Your task to perform on an android device: toggle notification dots Image 0: 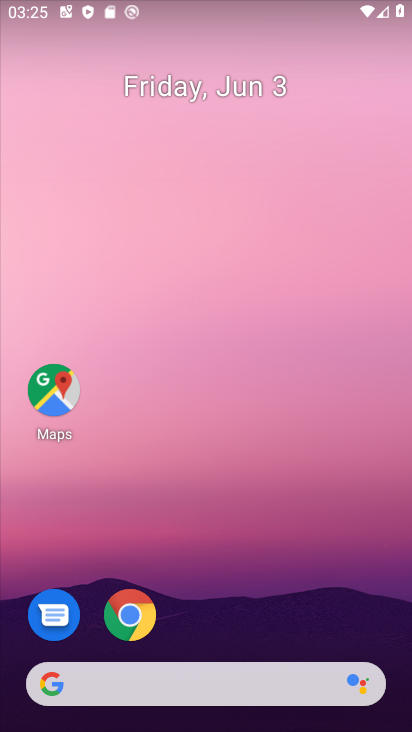
Step 0: drag from (261, 631) to (259, 1)
Your task to perform on an android device: toggle notification dots Image 1: 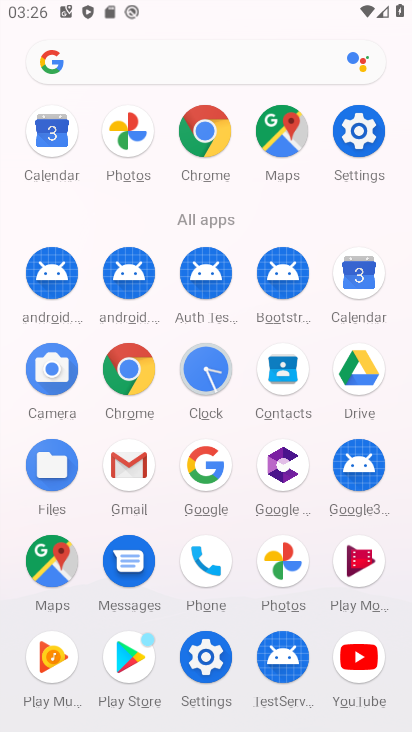
Step 1: click (367, 124)
Your task to perform on an android device: toggle notification dots Image 2: 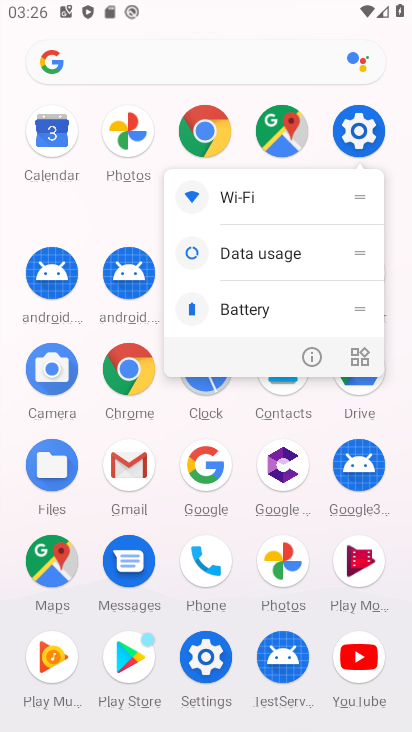
Step 2: click (363, 126)
Your task to perform on an android device: toggle notification dots Image 3: 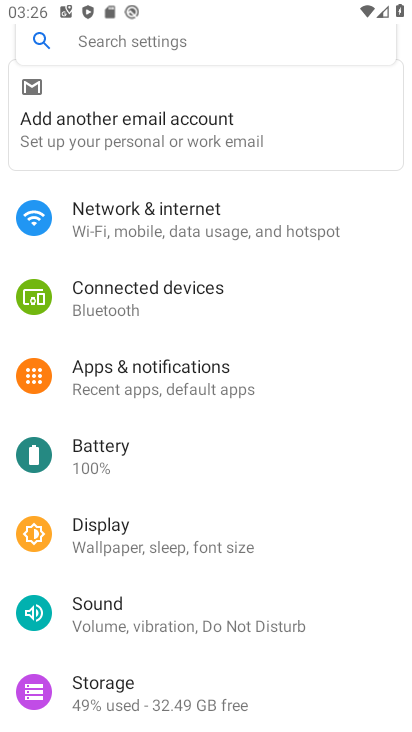
Step 3: click (200, 341)
Your task to perform on an android device: toggle notification dots Image 4: 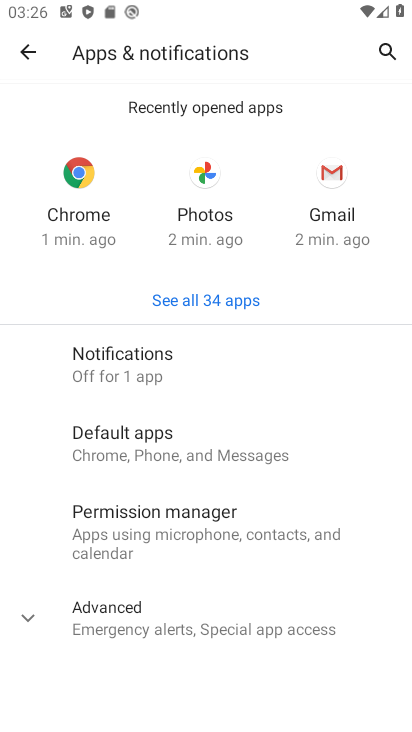
Step 4: click (153, 390)
Your task to perform on an android device: toggle notification dots Image 5: 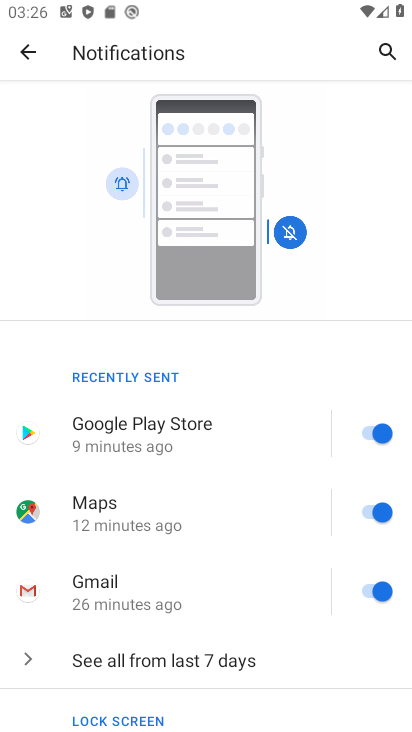
Step 5: drag from (235, 695) to (204, 259)
Your task to perform on an android device: toggle notification dots Image 6: 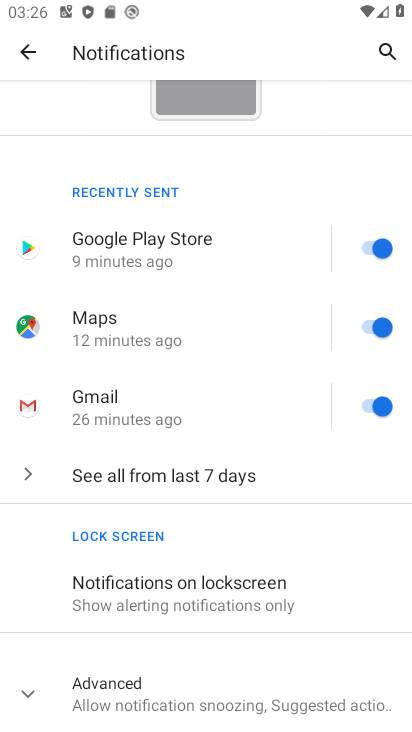
Step 6: click (241, 690)
Your task to perform on an android device: toggle notification dots Image 7: 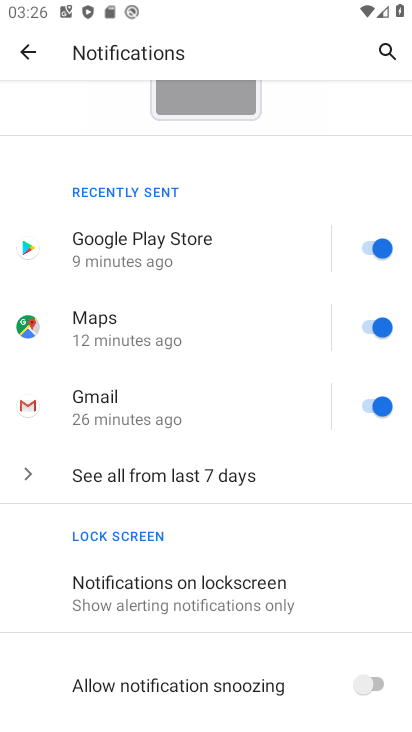
Step 7: drag from (241, 690) to (224, 382)
Your task to perform on an android device: toggle notification dots Image 8: 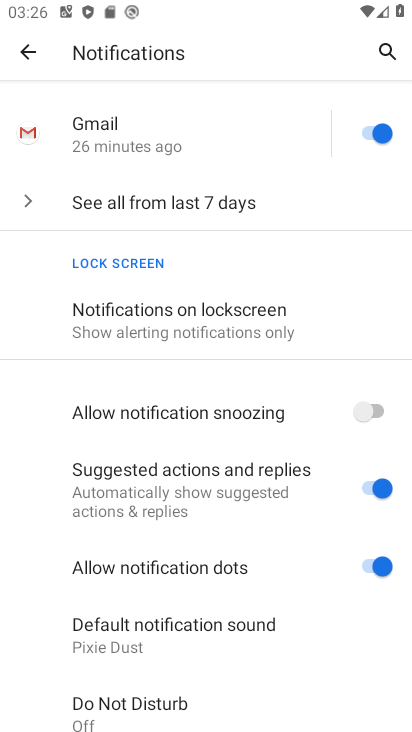
Step 8: click (370, 556)
Your task to perform on an android device: toggle notification dots Image 9: 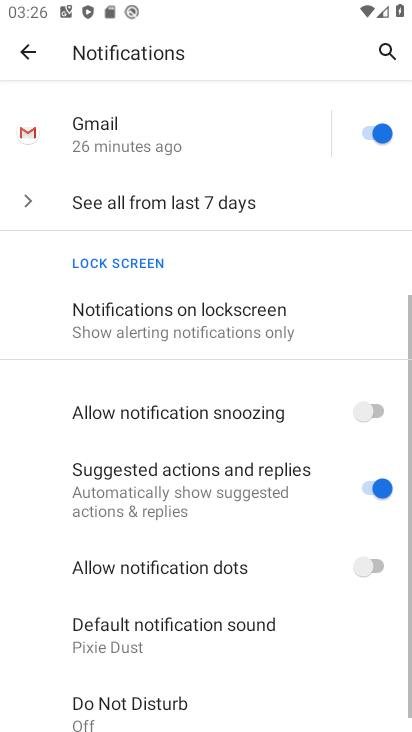
Step 9: task complete